Your task to perform on an android device: Go to display settings Image 0: 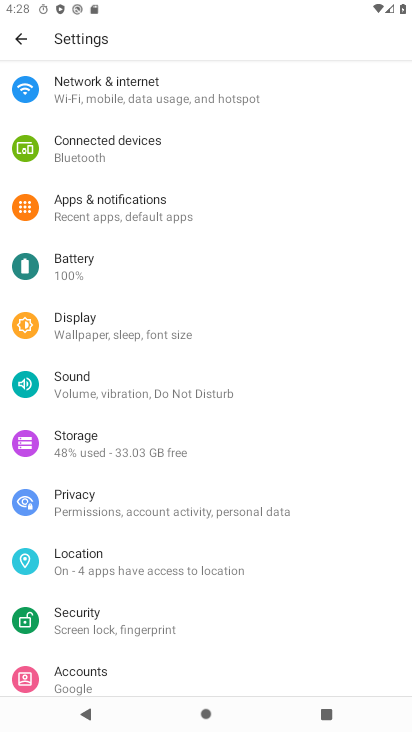
Step 0: click (91, 329)
Your task to perform on an android device: Go to display settings Image 1: 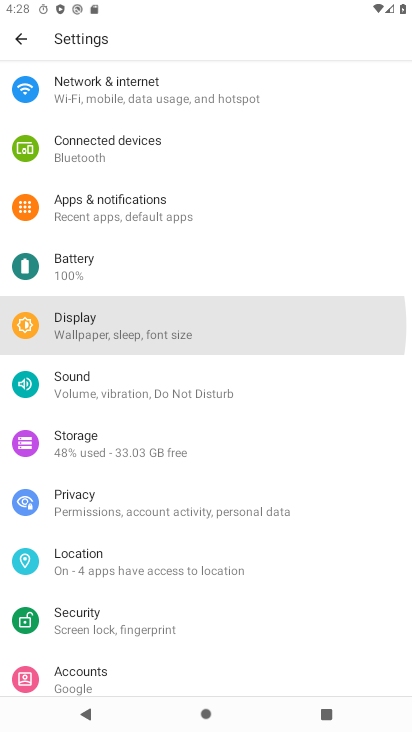
Step 1: click (90, 330)
Your task to perform on an android device: Go to display settings Image 2: 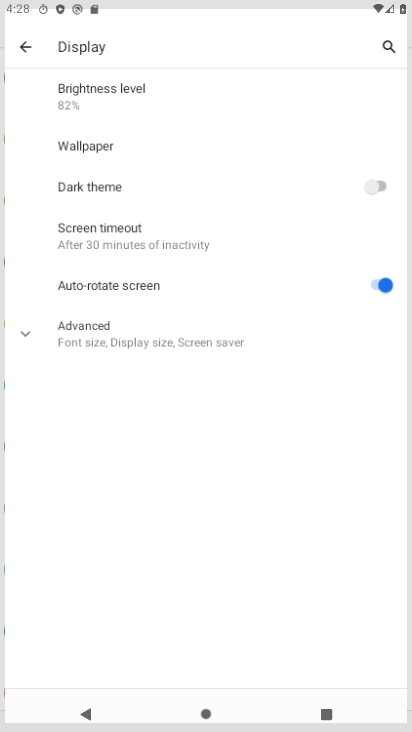
Step 2: click (90, 330)
Your task to perform on an android device: Go to display settings Image 3: 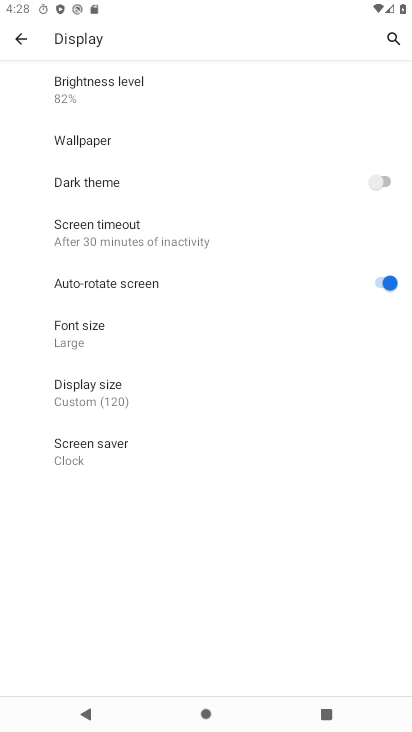
Step 3: task complete